Your task to perform on an android device: When is my next appointment? Image 0: 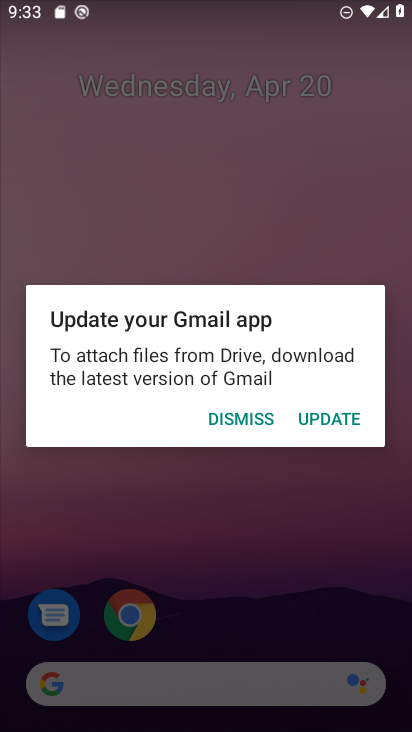
Step 0: press home button
Your task to perform on an android device: When is my next appointment? Image 1: 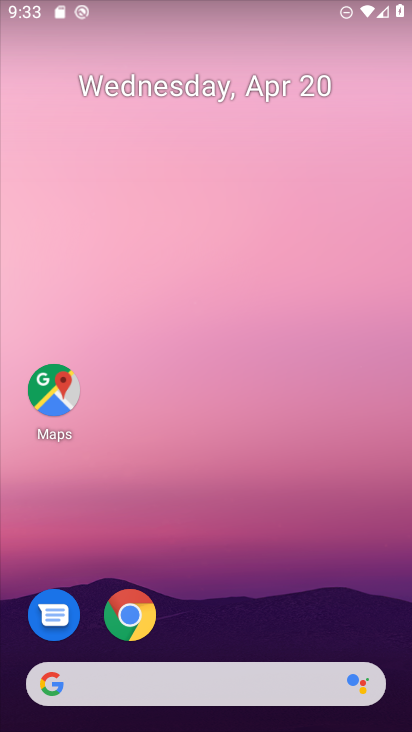
Step 1: drag from (224, 608) to (286, 29)
Your task to perform on an android device: When is my next appointment? Image 2: 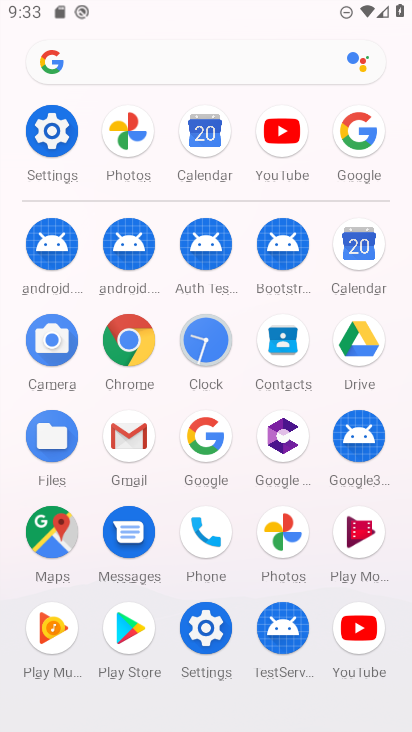
Step 2: click (361, 245)
Your task to perform on an android device: When is my next appointment? Image 3: 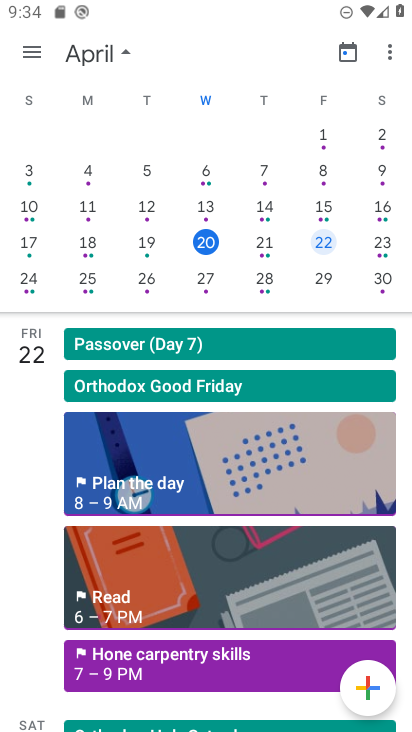
Step 3: task complete